Your task to perform on an android device: What's the weather going to be tomorrow? Image 0: 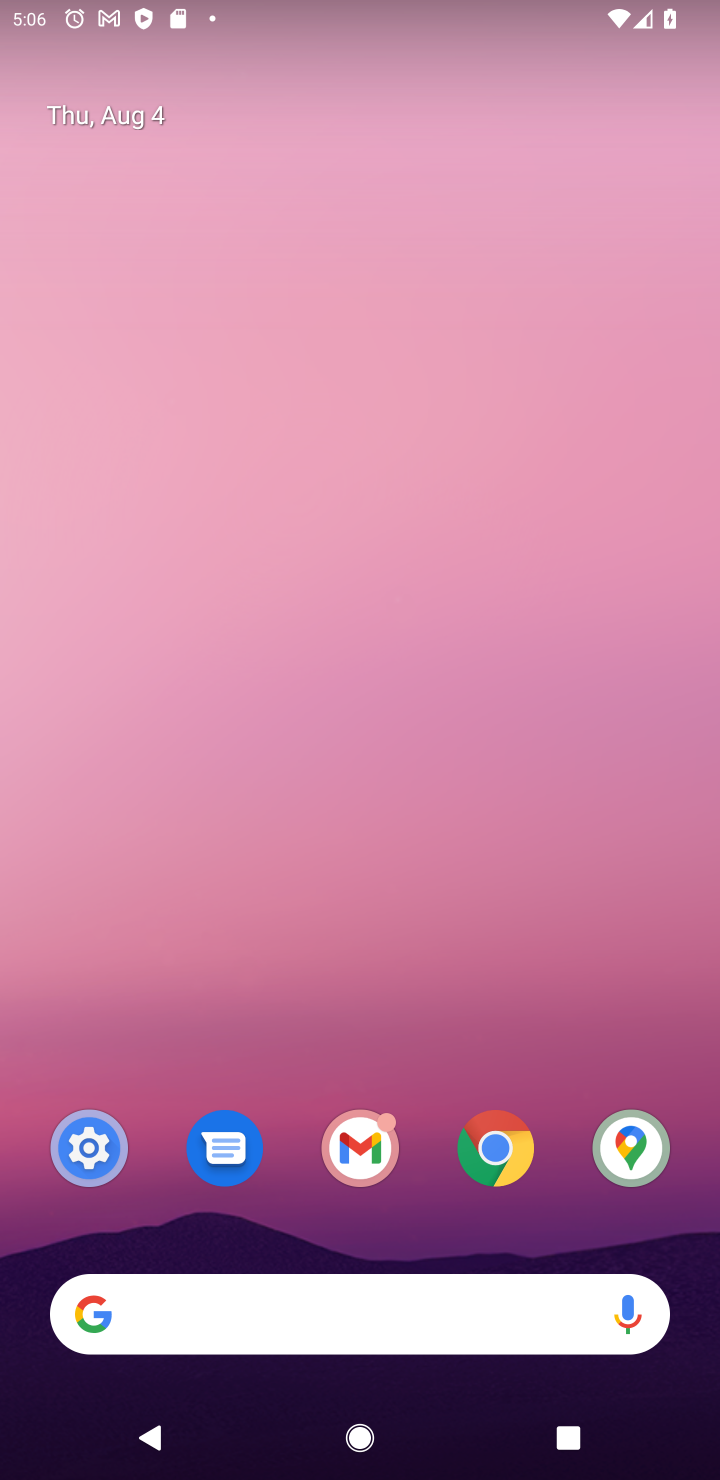
Step 0: click (274, 1293)
Your task to perform on an android device: What's the weather going to be tomorrow? Image 1: 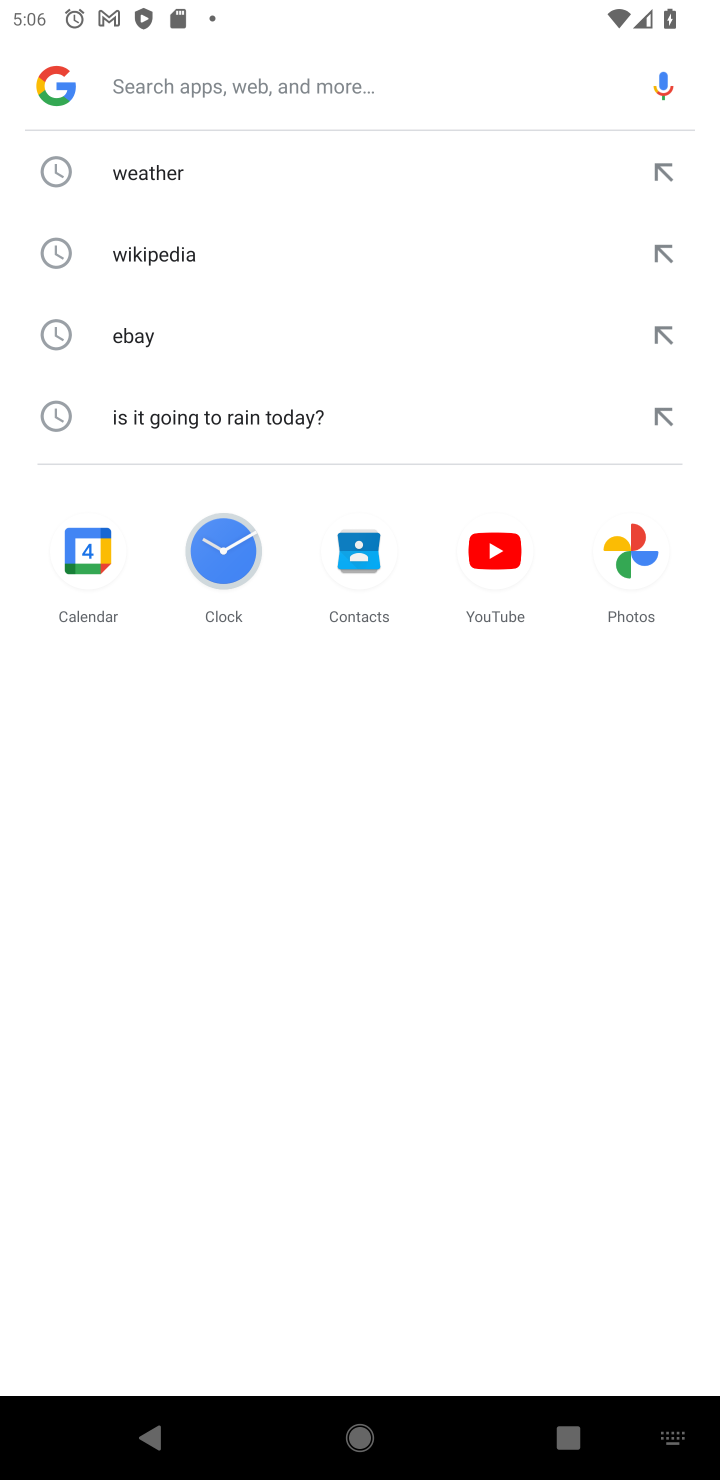
Step 1: click (135, 167)
Your task to perform on an android device: What's the weather going to be tomorrow? Image 2: 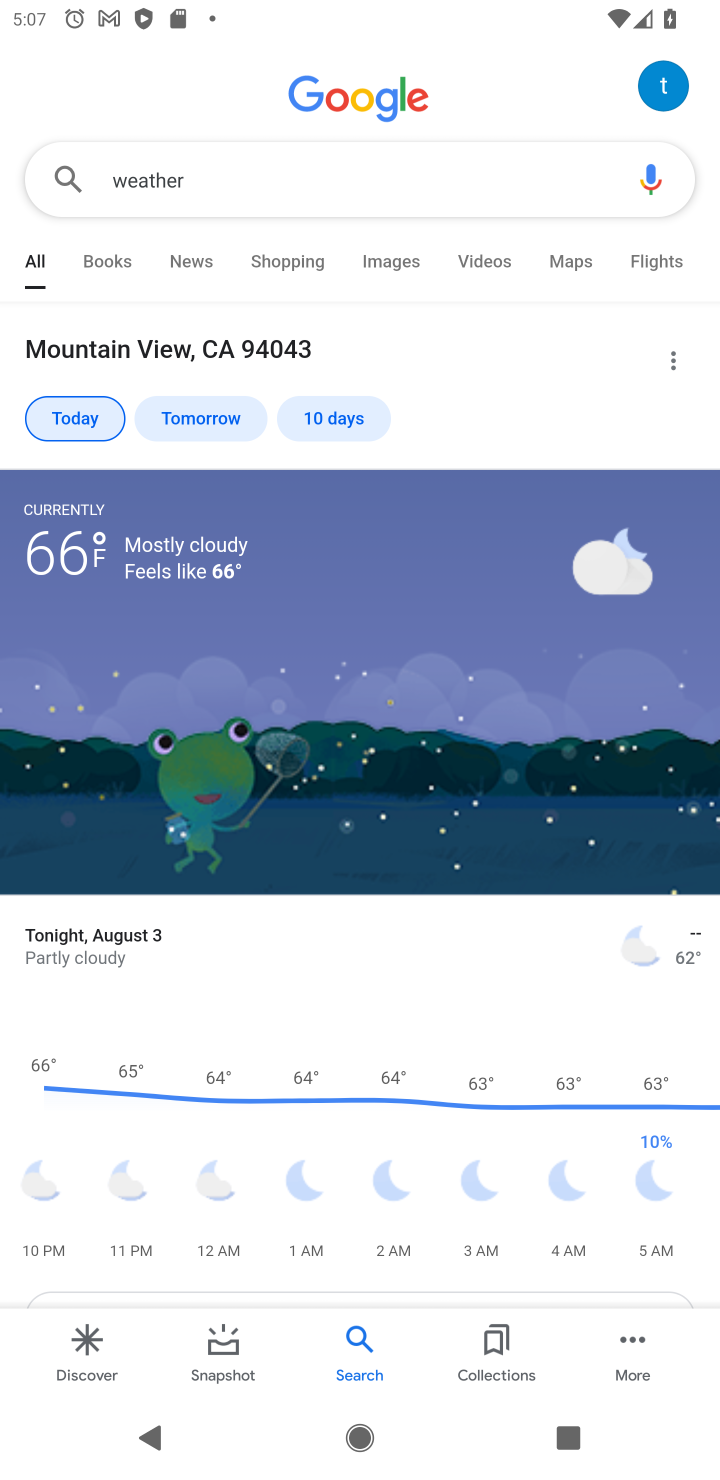
Step 2: click (214, 422)
Your task to perform on an android device: What's the weather going to be tomorrow? Image 3: 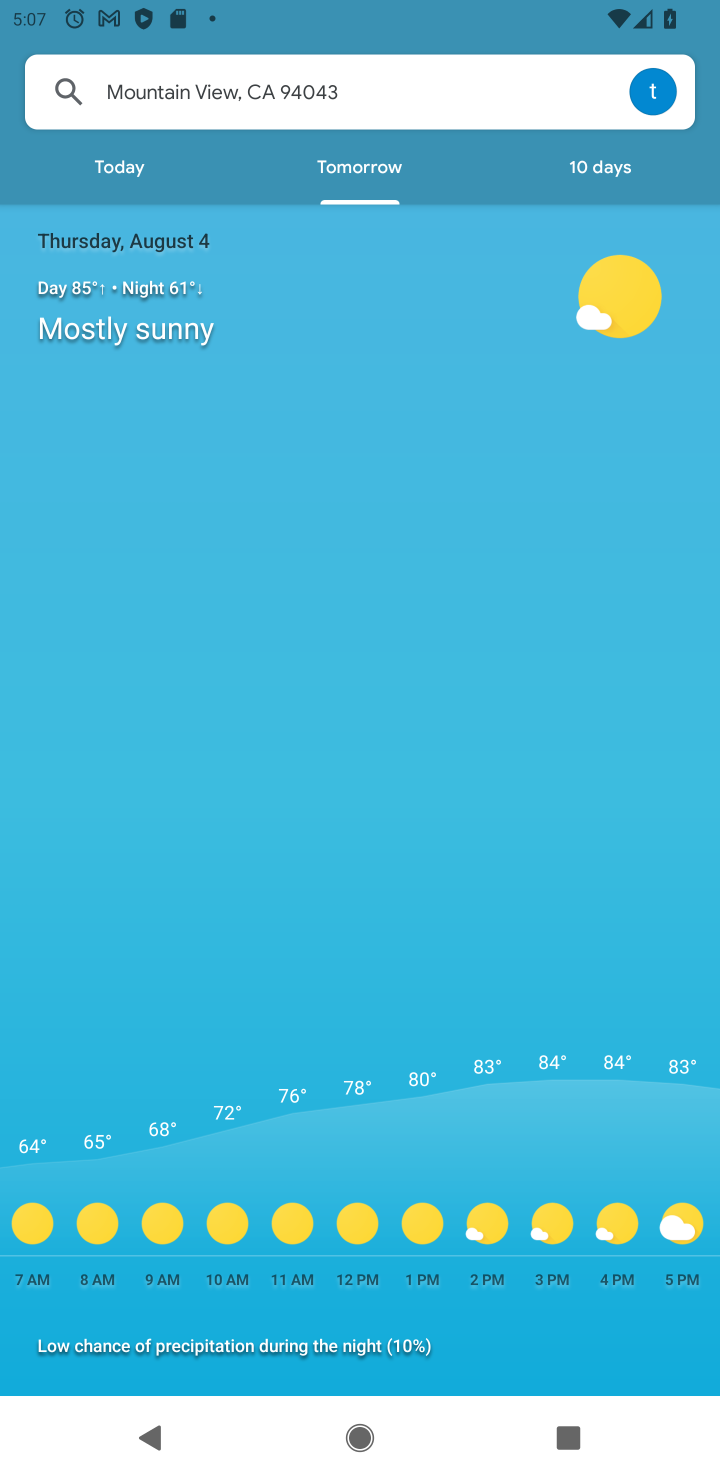
Step 3: drag from (430, 1075) to (456, 791)
Your task to perform on an android device: What's the weather going to be tomorrow? Image 4: 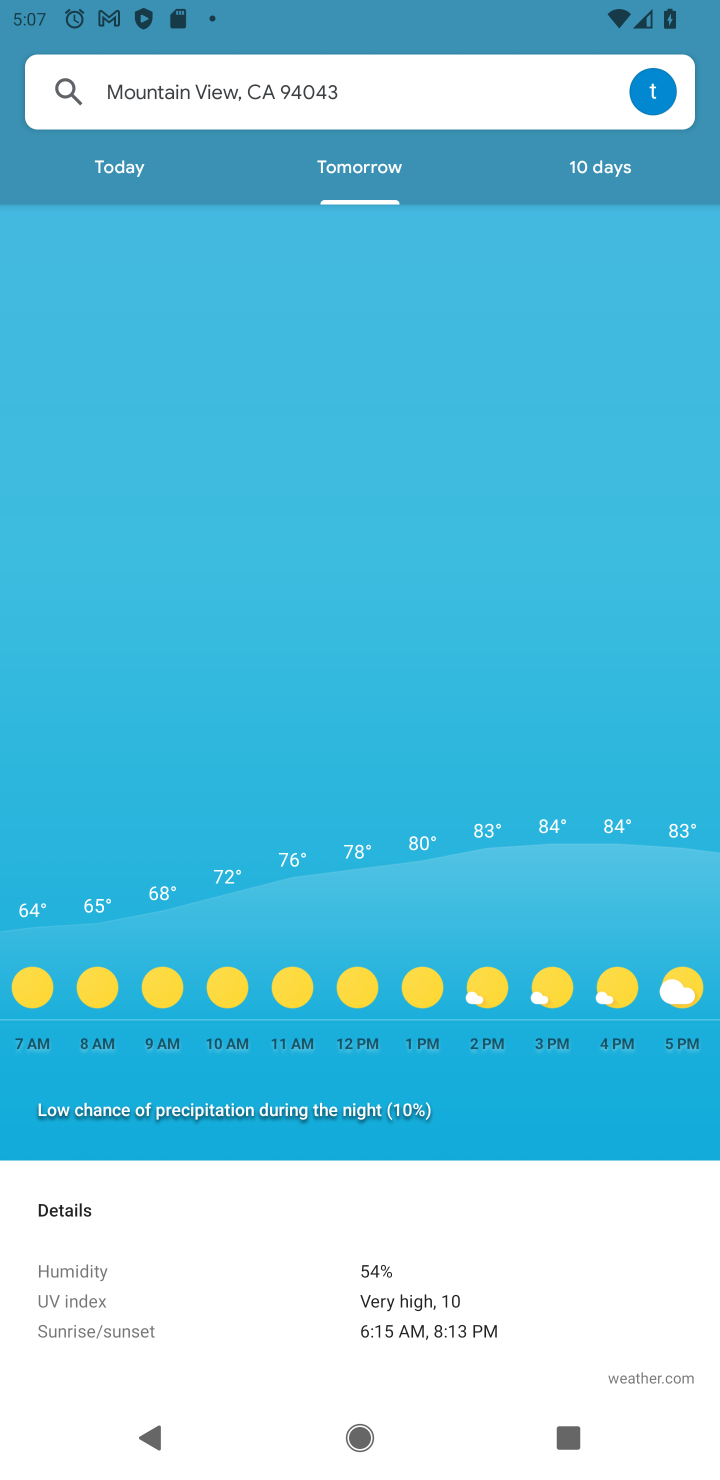
Step 4: drag from (648, 987) to (525, 974)
Your task to perform on an android device: What's the weather going to be tomorrow? Image 5: 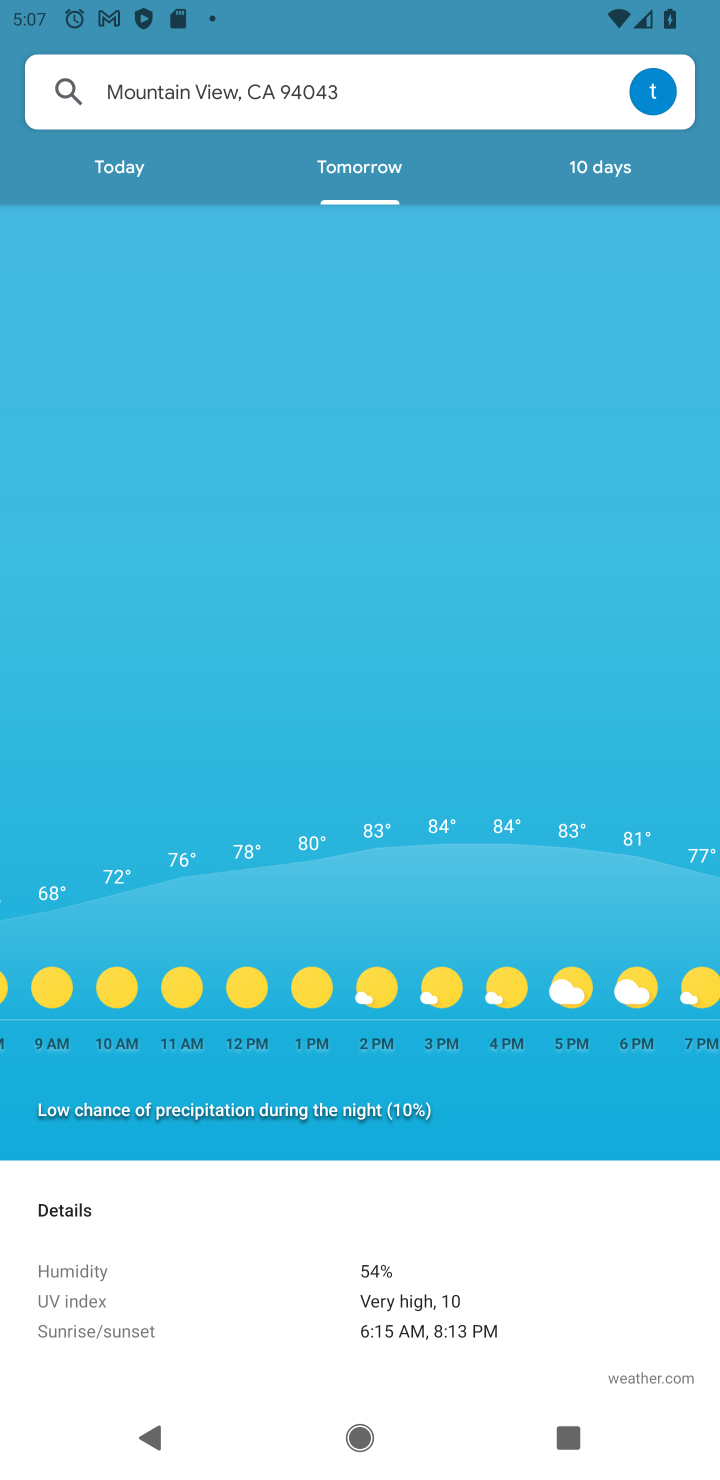
Step 5: drag from (486, 973) to (249, 986)
Your task to perform on an android device: What's the weather going to be tomorrow? Image 6: 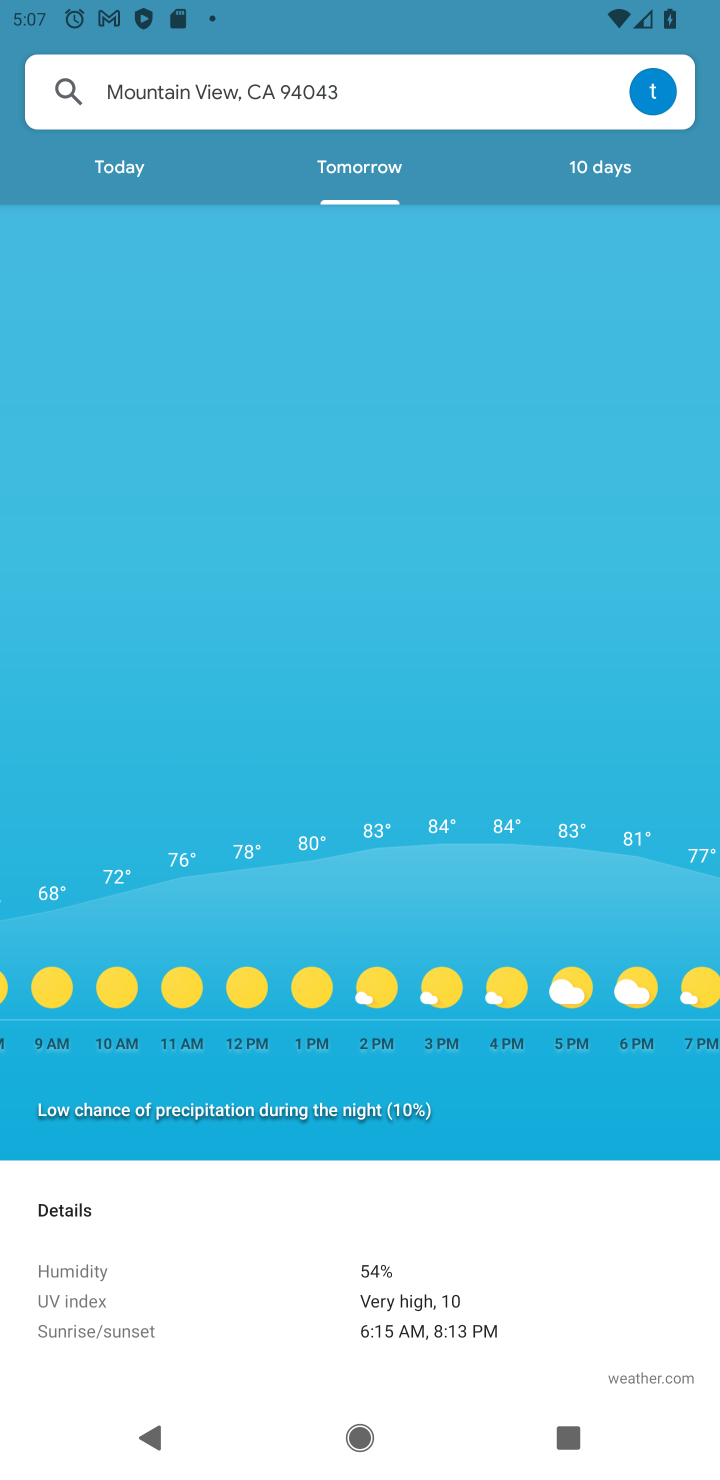
Step 6: drag from (633, 989) to (2, 1036)
Your task to perform on an android device: What's the weather going to be tomorrow? Image 7: 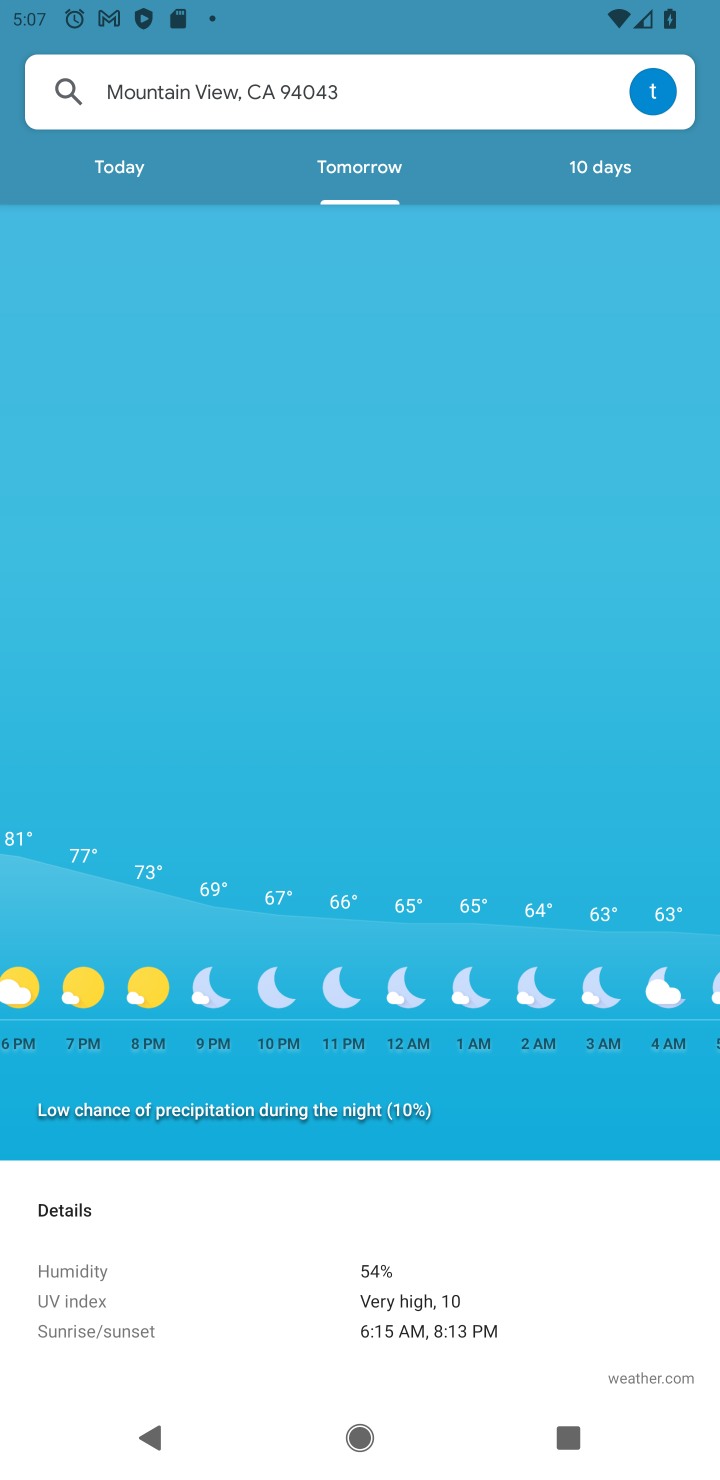
Step 7: click (588, 980)
Your task to perform on an android device: What's the weather going to be tomorrow? Image 8: 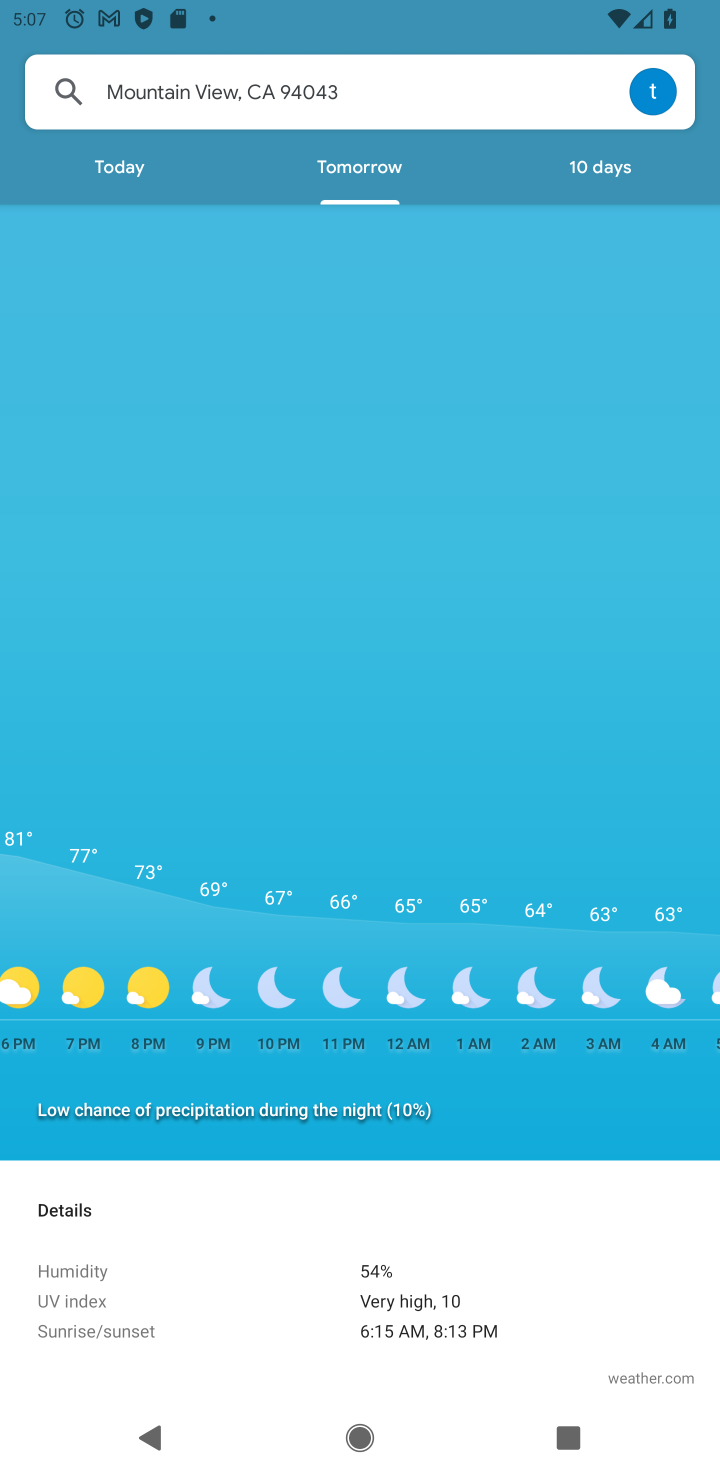
Step 8: drag from (580, 980) to (398, 999)
Your task to perform on an android device: What's the weather going to be tomorrow? Image 9: 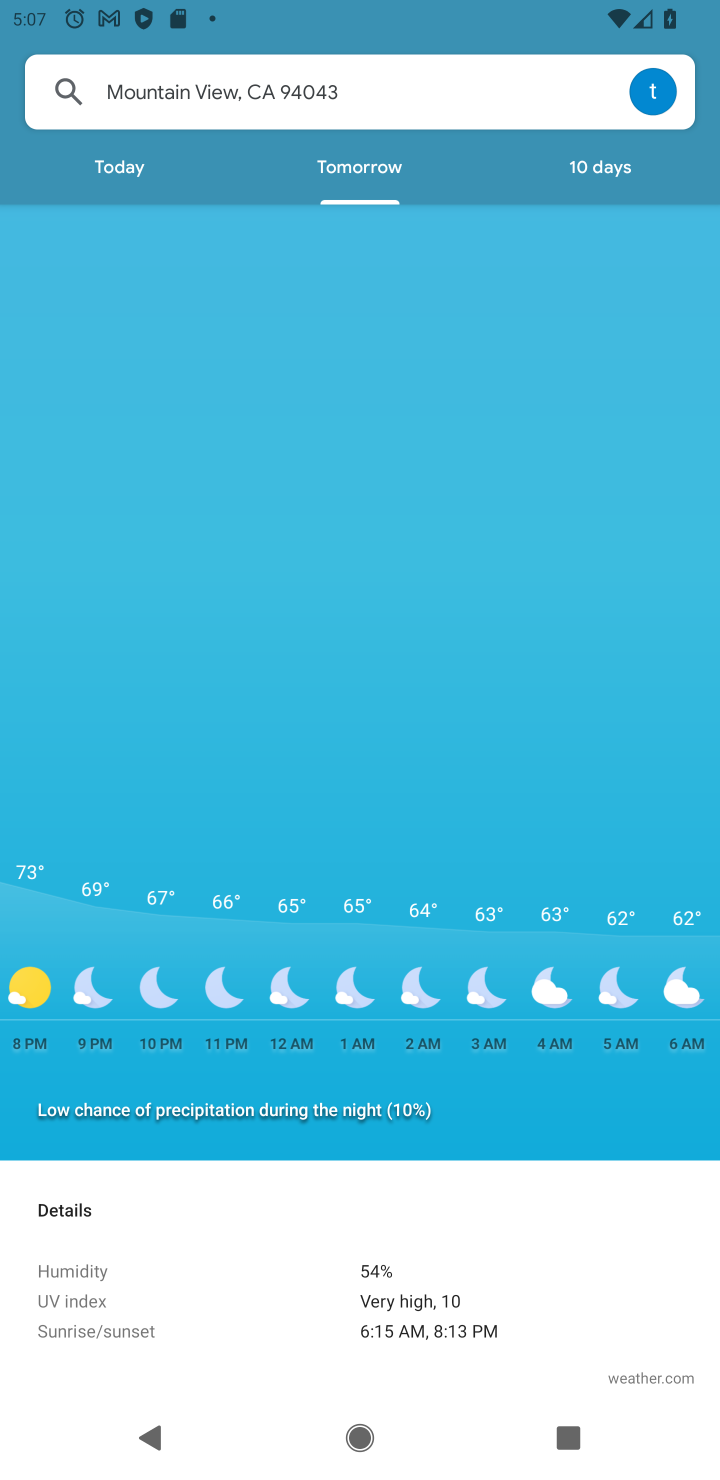
Step 9: drag from (363, 1000) to (136, 1025)
Your task to perform on an android device: What's the weather going to be tomorrow? Image 10: 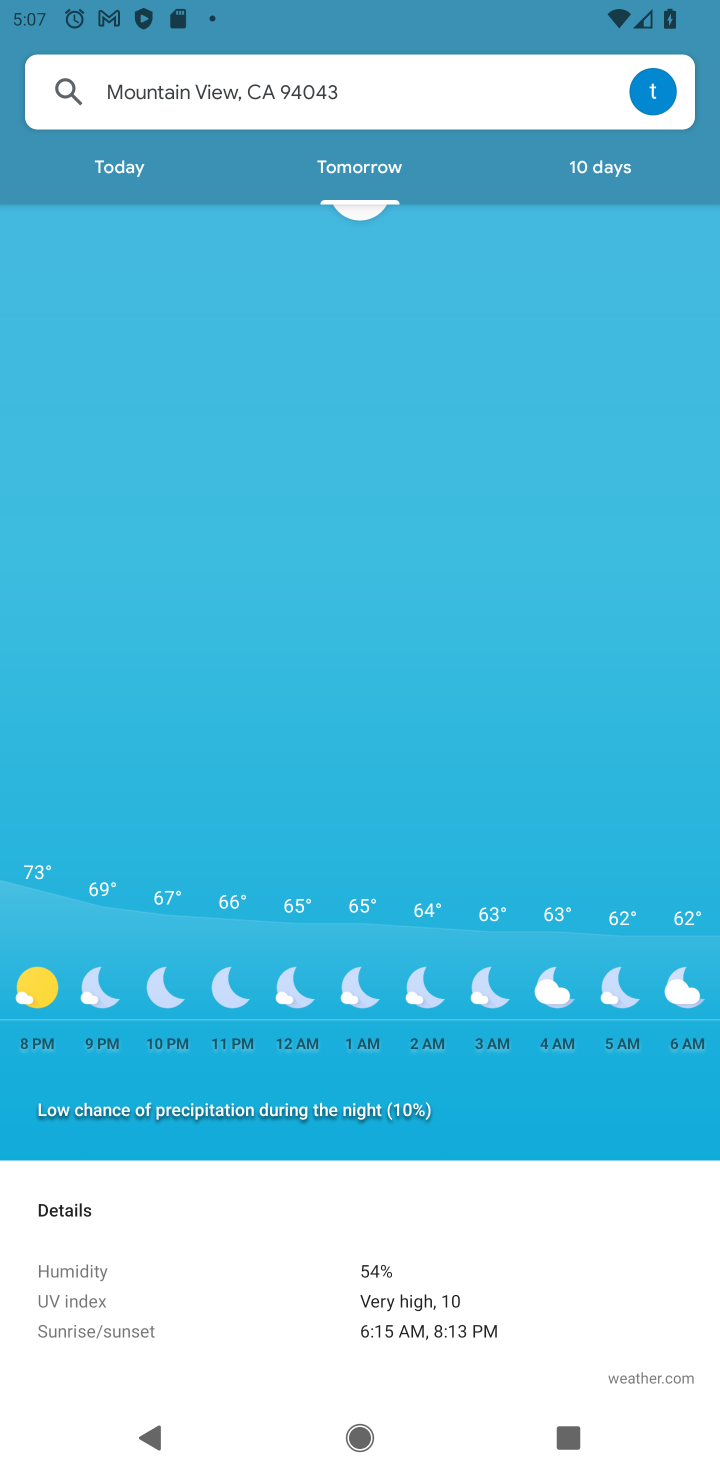
Step 10: click (116, 1027)
Your task to perform on an android device: What's the weather going to be tomorrow? Image 11: 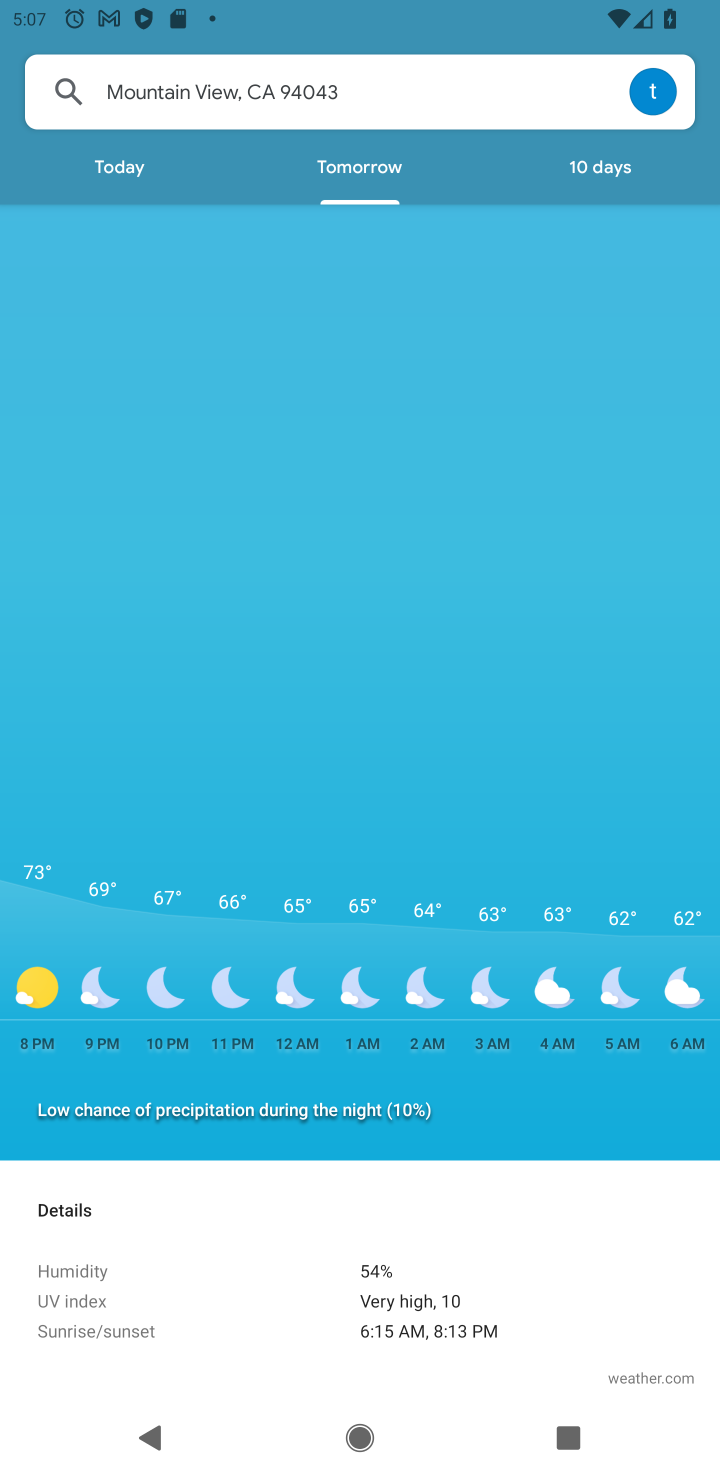
Step 11: task complete